Your task to perform on an android device: Go to location settings Image 0: 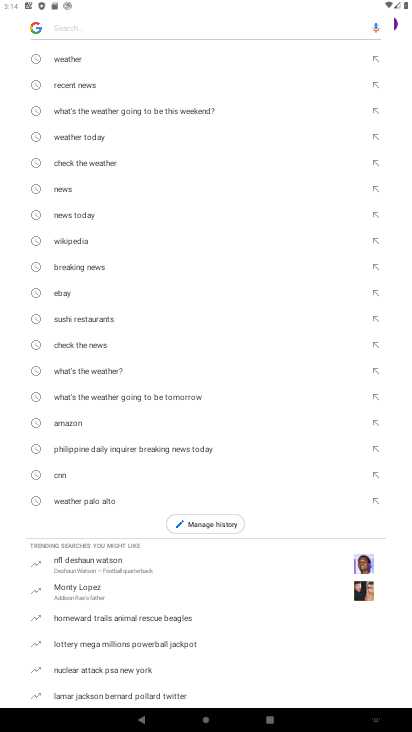
Step 0: press home button
Your task to perform on an android device: Go to location settings Image 1: 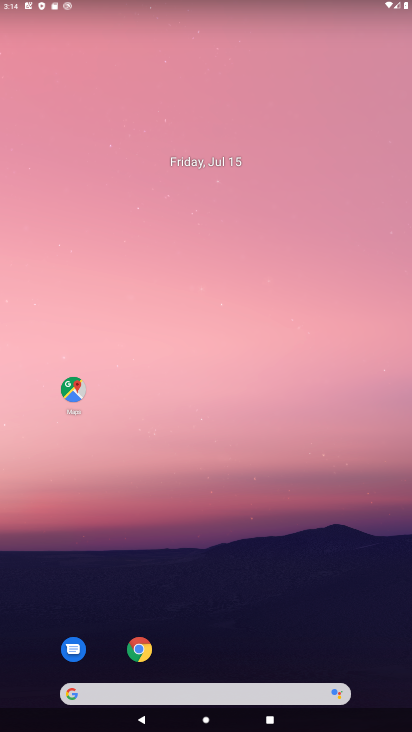
Step 1: drag from (265, 526) to (233, 84)
Your task to perform on an android device: Go to location settings Image 2: 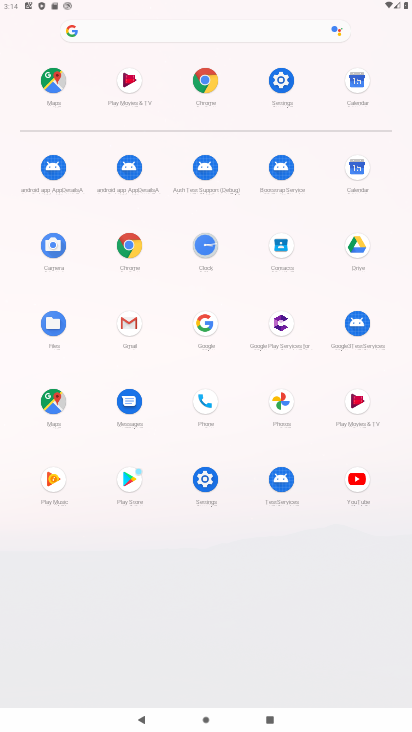
Step 2: click (292, 84)
Your task to perform on an android device: Go to location settings Image 3: 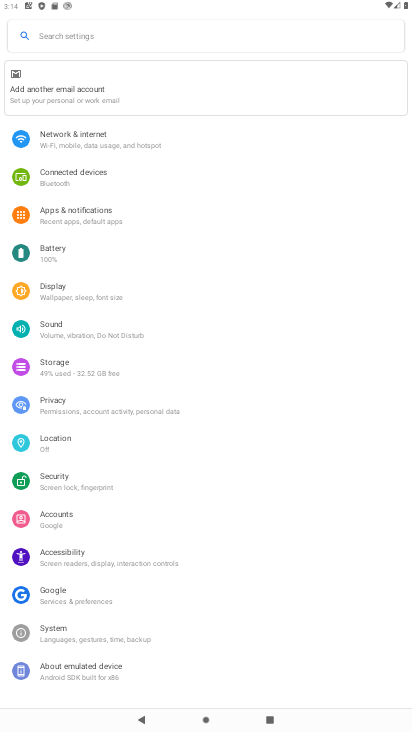
Step 3: click (65, 444)
Your task to perform on an android device: Go to location settings Image 4: 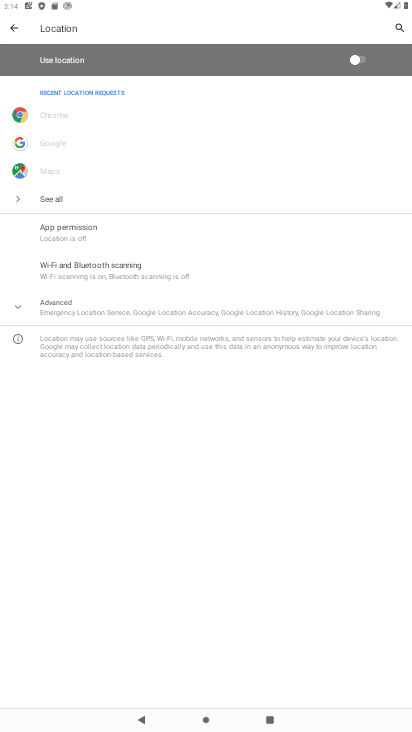
Step 4: task complete